Your task to perform on an android device: Open Amazon Image 0: 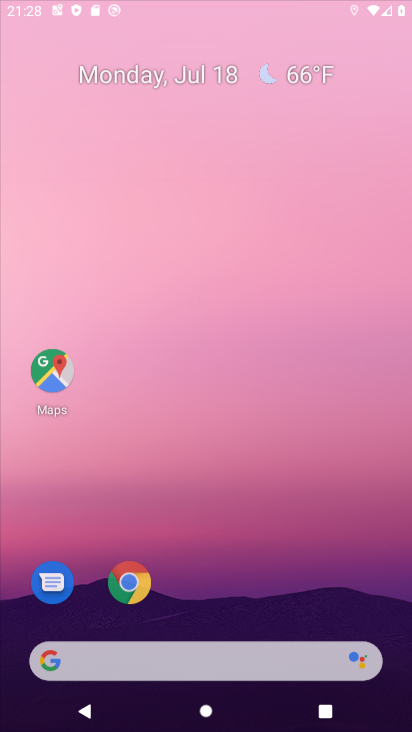
Step 0: press home button
Your task to perform on an android device: Open Amazon Image 1: 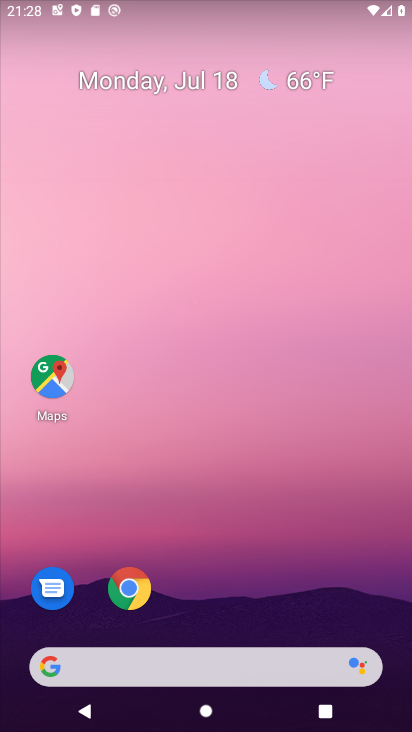
Step 1: click (129, 595)
Your task to perform on an android device: Open Amazon Image 2: 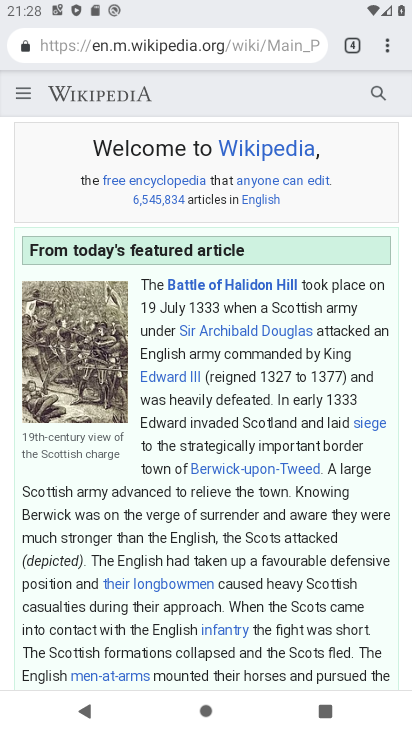
Step 2: drag from (389, 42) to (398, 7)
Your task to perform on an android device: Open Amazon Image 3: 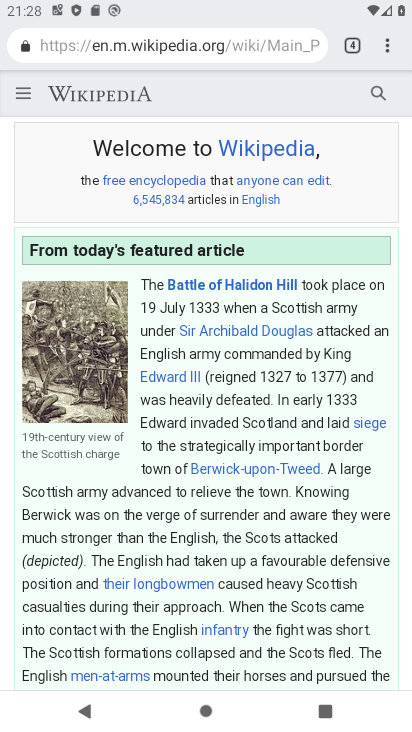
Step 3: click (236, 82)
Your task to perform on an android device: Open Amazon Image 4: 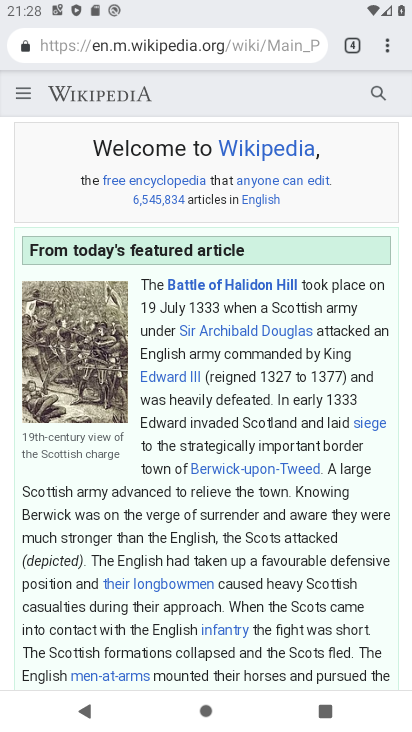
Step 4: drag from (386, 37) to (321, 91)
Your task to perform on an android device: Open Amazon Image 5: 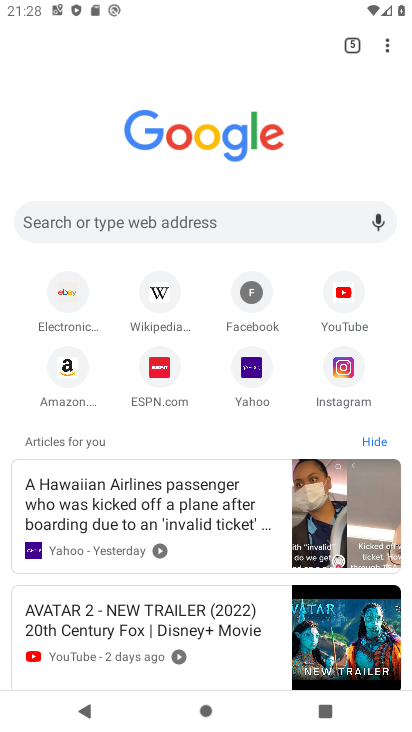
Step 5: click (66, 359)
Your task to perform on an android device: Open Amazon Image 6: 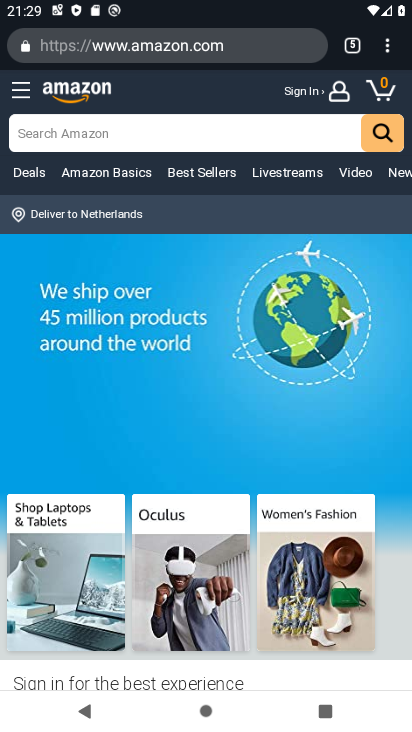
Step 6: task complete